Your task to perform on an android device: turn off picture-in-picture Image 0: 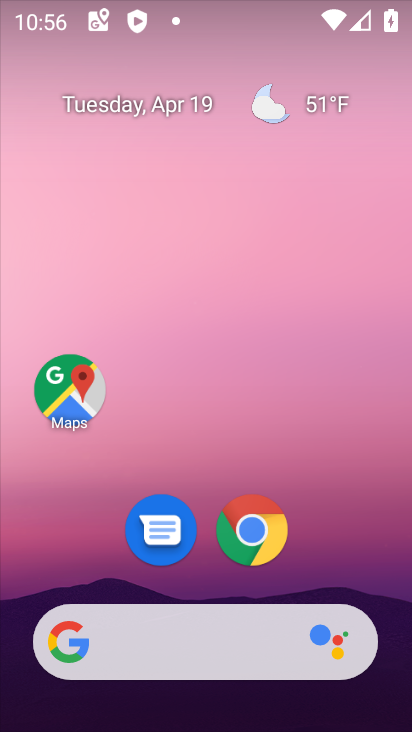
Step 0: click (262, 530)
Your task to perform on an android device: turn off picture-in-picture Image 1: 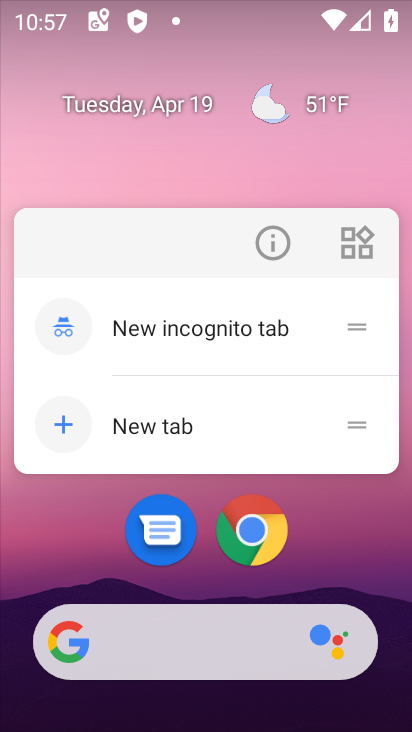
Step 1: click (271, 237)
Your task to perform on an android device: turn off picture-in-picture Image 2: 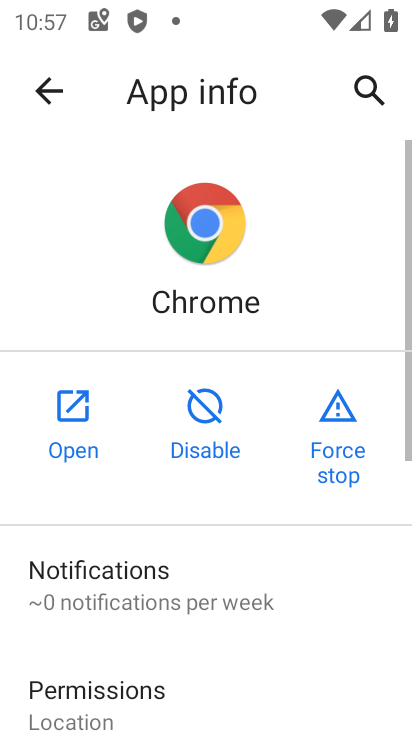
Step 2: drag from (188, 646) to (179, 227)
Your task to perform on an android device: turn off picture-in-picture Image 3: 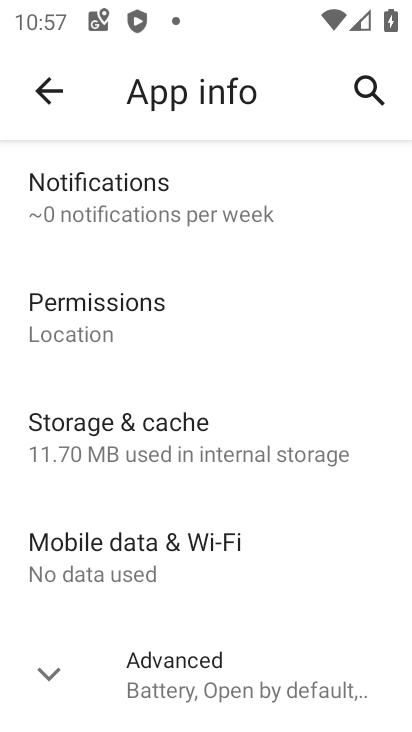
Step 3: click (50, 668)
Your task to perform on an android device: turn off picture-in-picture Image 4: 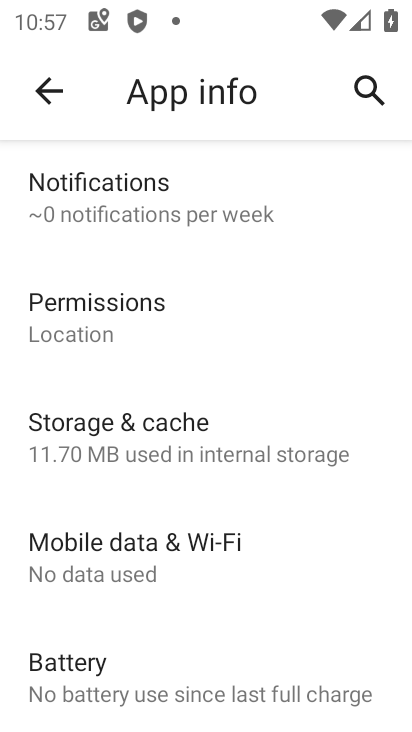
Step 4: drag from (211, 600) to (231, 250)
Your task to perform on an android device: turn off picture-in-picture Image 5: 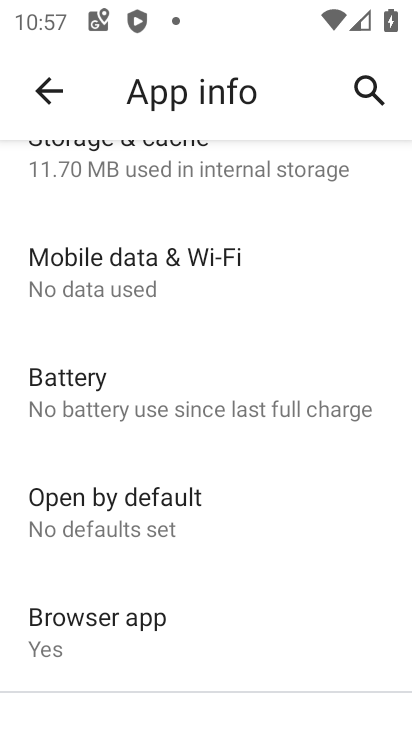
Step 5: drag from (236, 578) to (274, 179)
Your task to perform on an android device: turn off picture-in-picture Image 6: 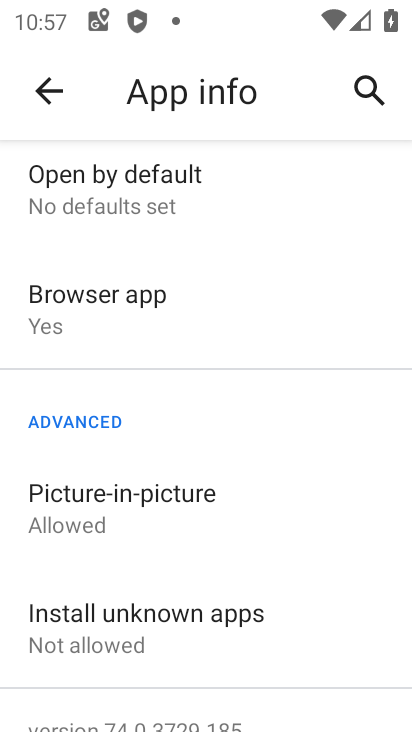
Step 6: click (141, 510)
Your task to perform on an android device: turn off picture-in-picture Image 7: 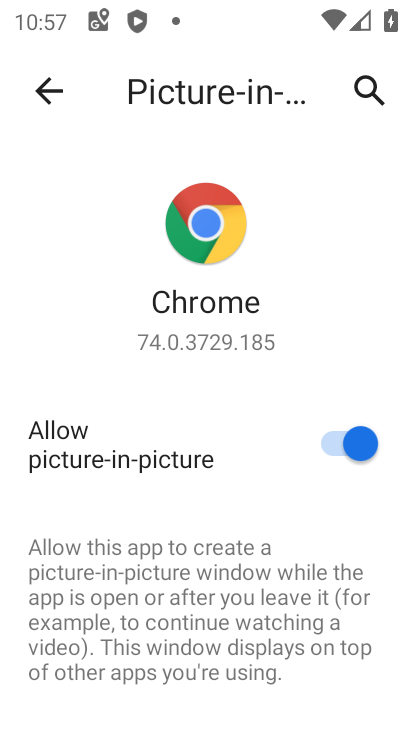
Step 7: click (333, 438)
Your task to perform on an android device: turn off picture-in-picture Image 8: 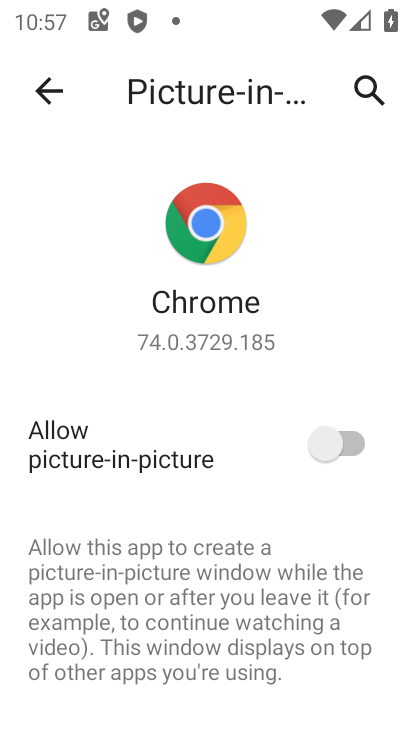
Step 8: task complete